Your task to perform on an android device: snooze an email in the gmail app Image 0: 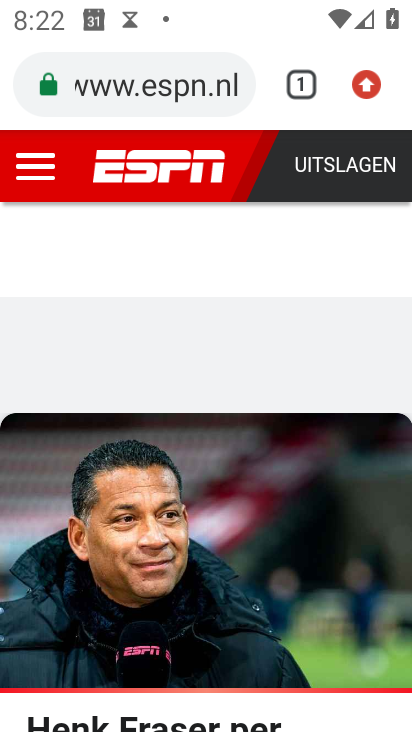
Step 0: press home button
Your task to perform on an android device: snooze an email in the gmail app Image 1: 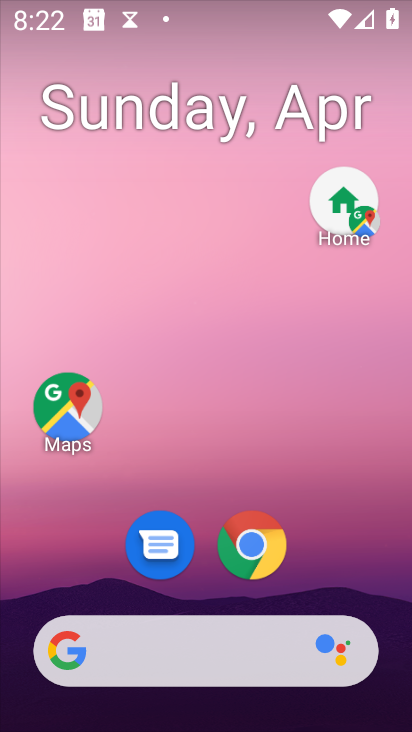
Step 1: drag from (295, 569) to (240, 63)
Your task to perform on an android device: snooze an email in the gmail app Image 2: 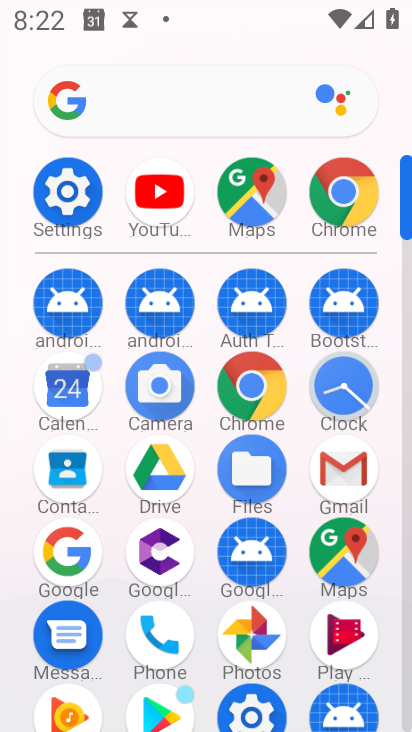
Step 2: click (339, 463)
Your task to perform on an android device: snooze an email in the gmail app Image 3: 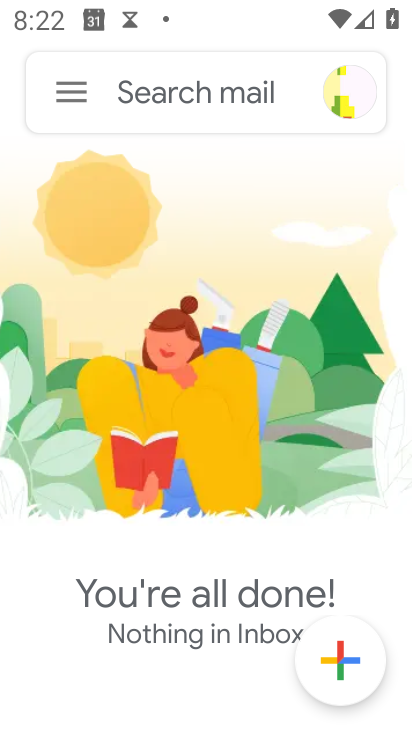
Step 3: click (64, 91)
Your task to perform on an android device: snooze an email in the gmail app Image 4: 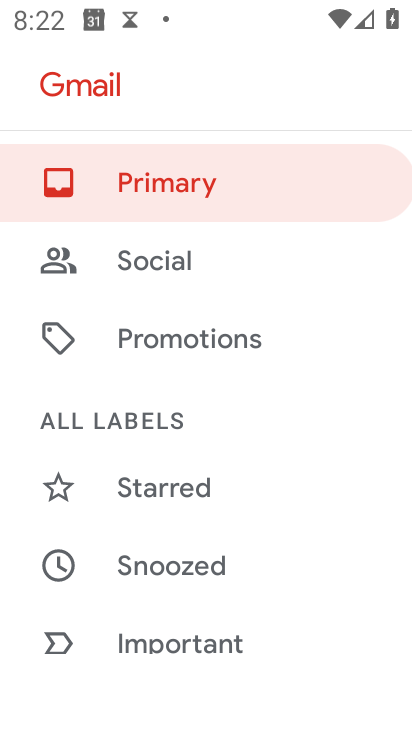
Step 4: drag from (200, 621) to (215, 546)
Your task to perform on an android device: snooze an email in the gmail app Image 5: 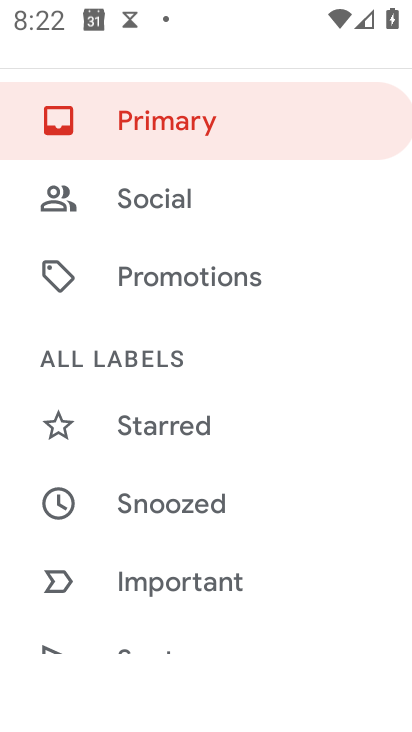
Step 5: click (222, 499)
Your task to perform on an android device: snooze an email in the gmail app Image 6: 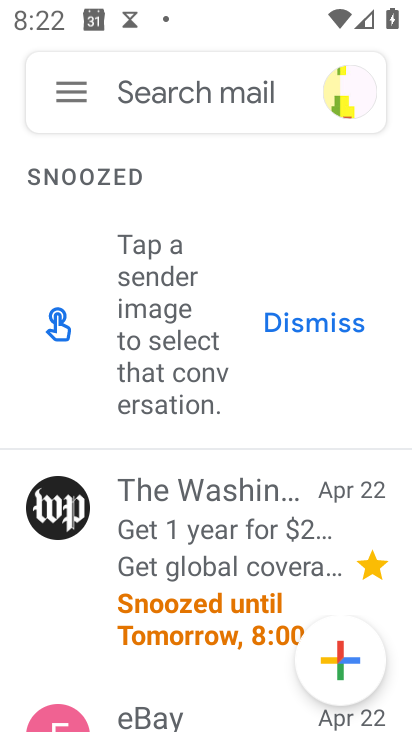
Step 6: task complete